Your task to perform on an android device: allow notifications from all sites in the chrome app Image 0: 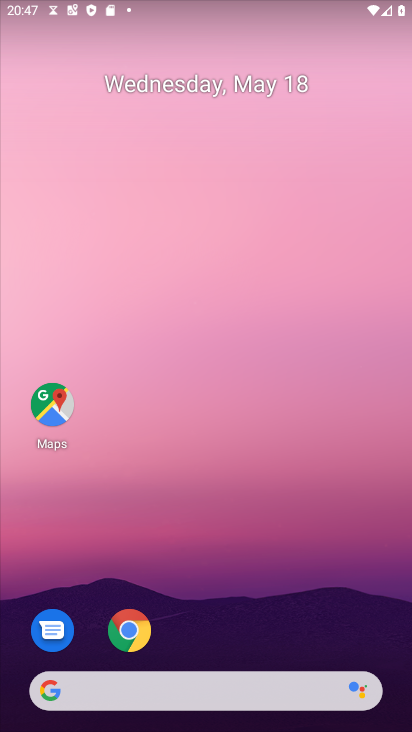
Step 0: click (122, 641)
Your task to perform on an android device: allow notifications from all sites in the chrome app Image 1: 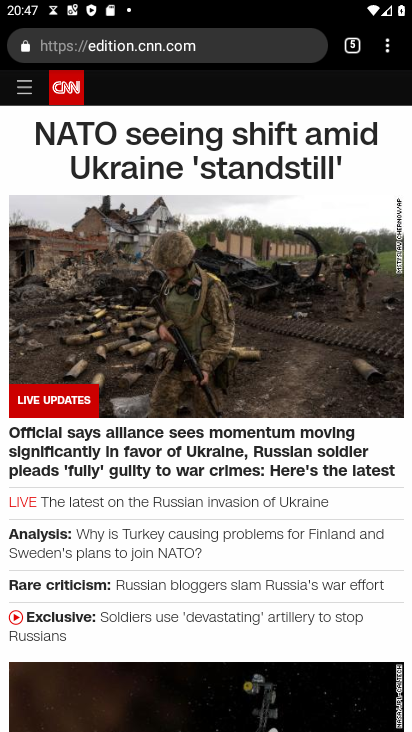
Step 1: drag from (390, 44) to (293, 510)
Your task to perform on an android device: allow notifications from all sites in the chrome app Image 2: 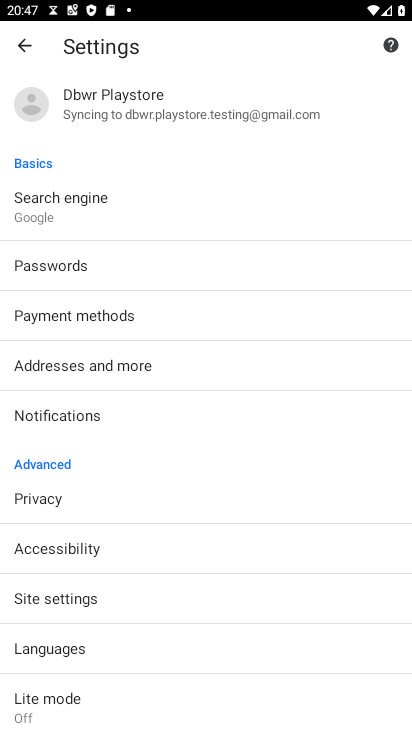
Step 2: click (105, 604)
Your task to perform on an android device: allow notifications from all sites in the chrome app Image 3: 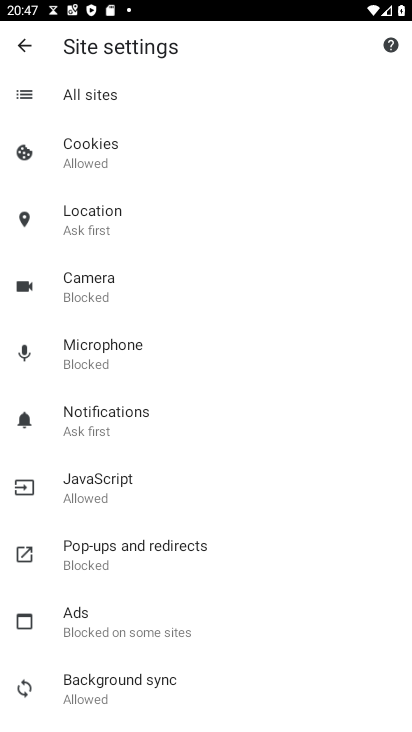
Step 3: click (130, 422)
Your task to perform on an android device: allow notifications from all sites in the chrome app Image 4: 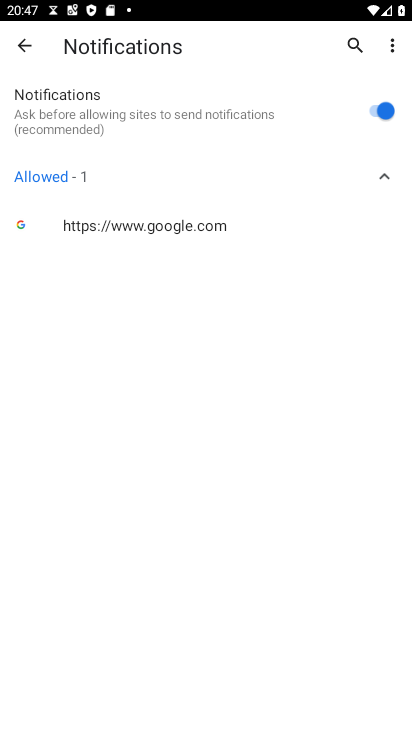
Step 4: task complete